Your task to perform on an android device: Find coffee shops on Maps Image 0: 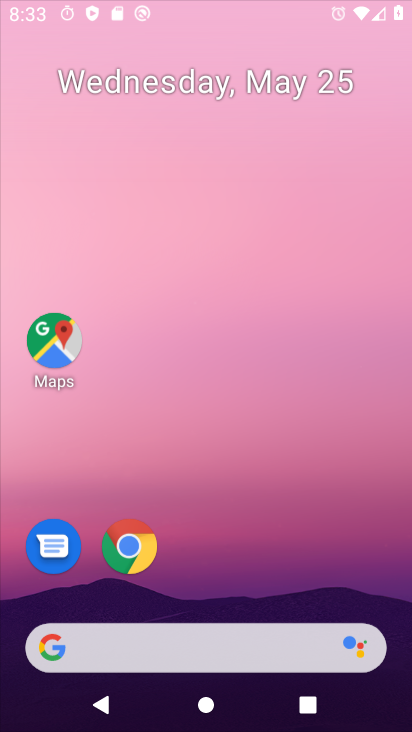
Step 0: drag from (209, 490) to (204, 108)
Your task to perform on an android device: Find coffee shops on Maps Image 1: 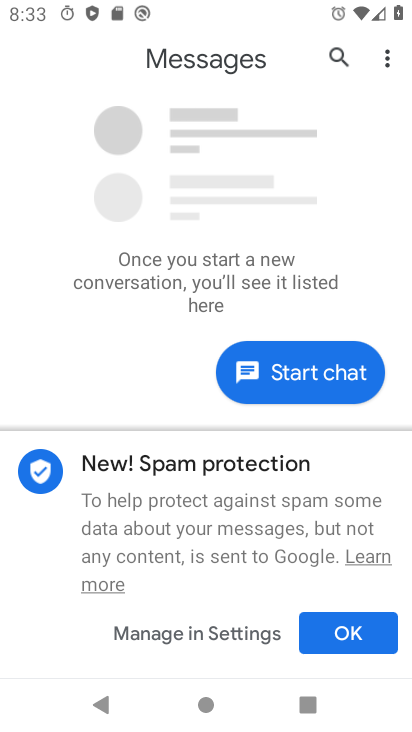
Step 1: press home button
Your task to perform on an android device: Find coffee shops on Maps Image 2: 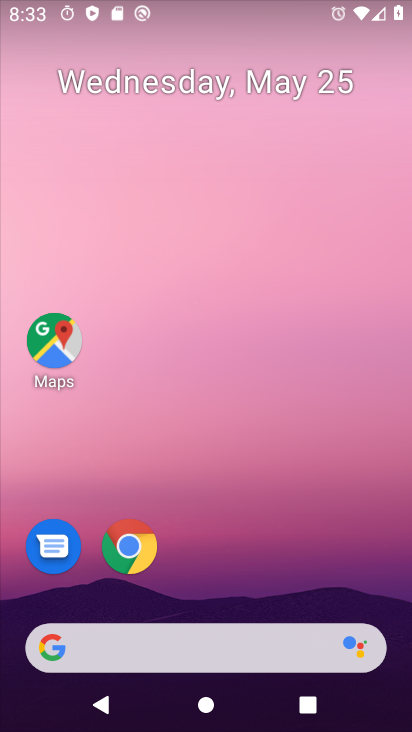
Step 2: drag from (178, 604) to (138, 45)
Your task to perform on an android device: Find coffee shops on Maps Image 3: 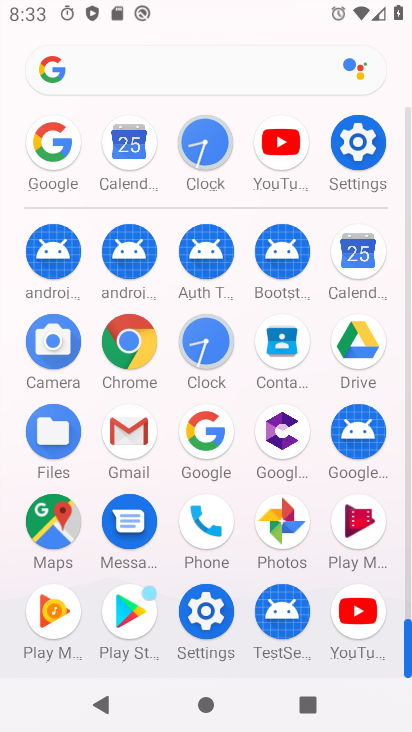
Step 3: click (52, 524)
Your task to perform on an android device: Find coffee shops on Maps Image 4: 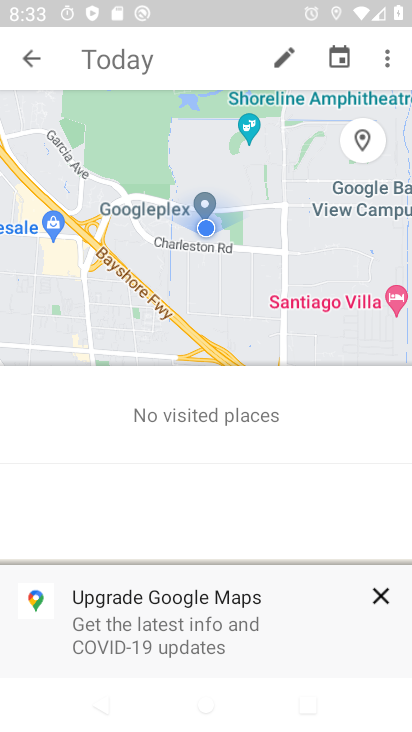
Step 4: click (34, 56)
Your task to perform on an android device: Find coffee shops on Maps Image 5: 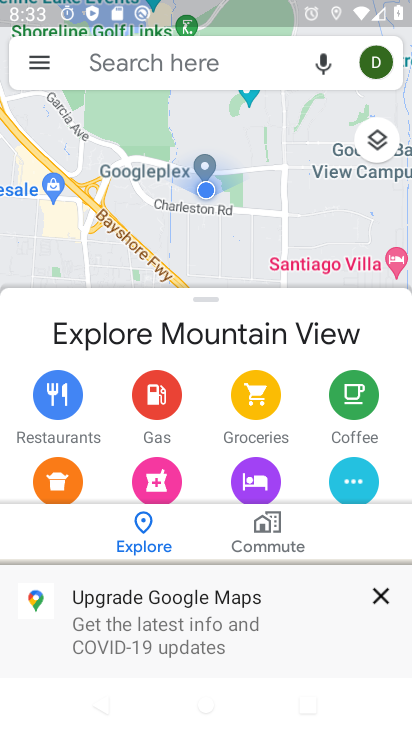
Step 5: click (194, 67)
Your task to perform on an android device: Find coffee shops on Maps Image 6: 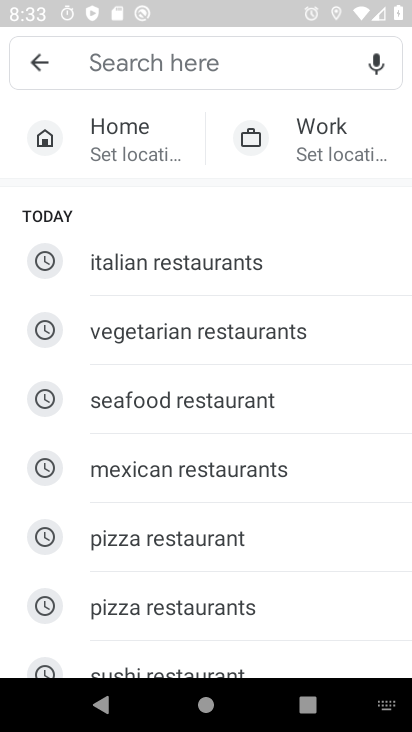
Step 6: drag from (230, 623) to (229, 249)
Your task to perform on an android device: Find coffee shops on Maps Image 7: 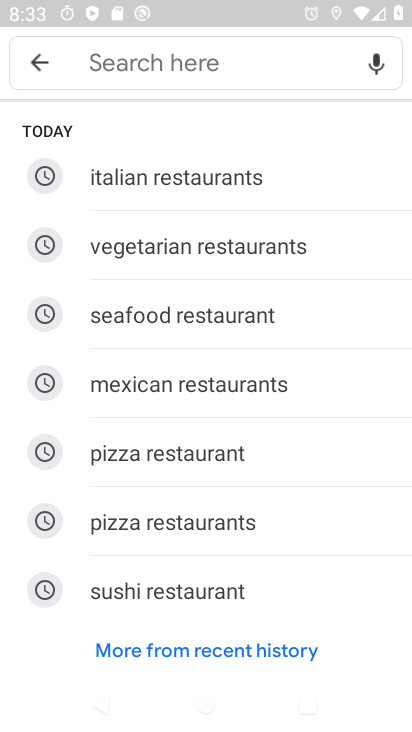
Step 7: click (164, 65)
Your task to perform on an android device: Find coffee shops on Maps Image 8: 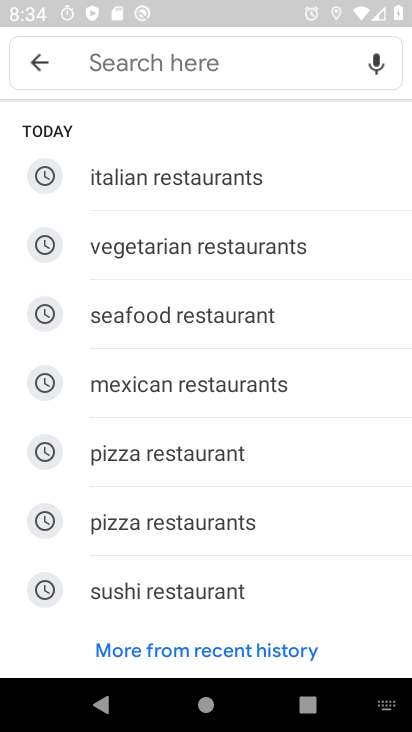
Step 8: type "coffee shops"
Your task to perform on an android device: Find coffee shops on Maps Image 9: 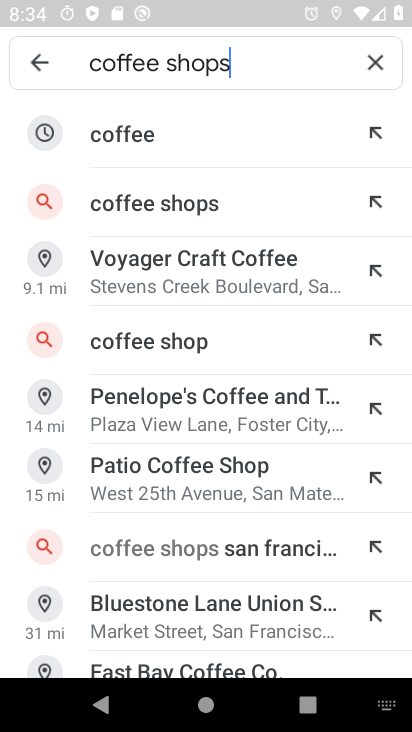
Step 9: click (144, 208)
Your task to perform on an android device: Find coffee shops on Maps Image 10: 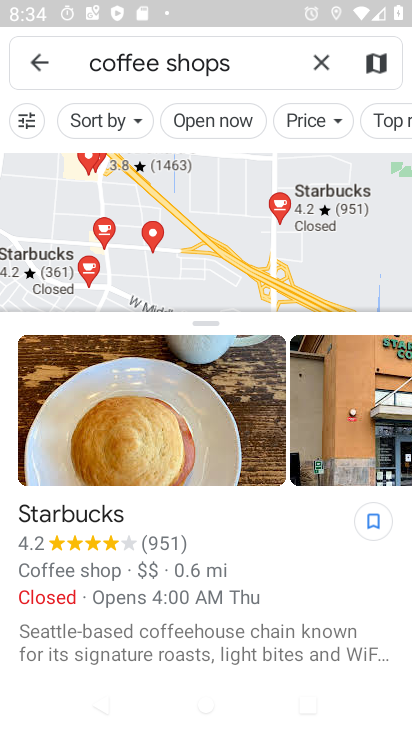
Step 10: task complete